Your task to perform on an android device: see sites visited before in the chrome app Image 0: 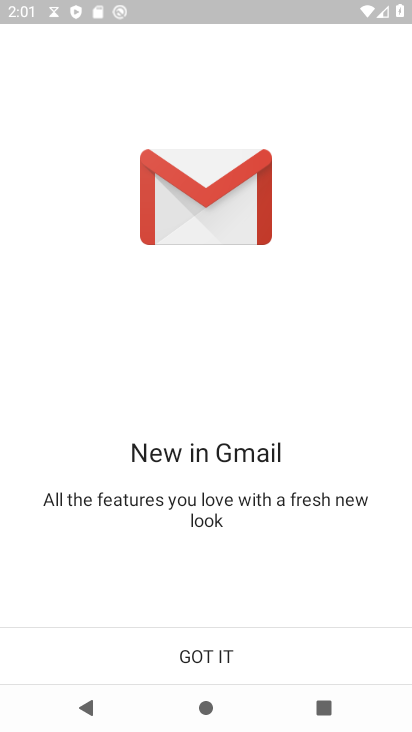
Step 0: press home button
Your task to perform on an android device: see sites visited before in the chrome app Image 1: 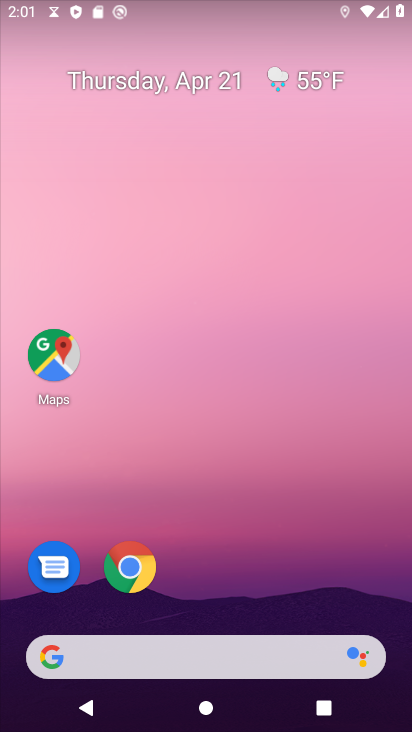
Step 1: drag from (262, 574) to (343, 123)
Your task to perform on an android device: see sites visited before in the chrome app Image 2: 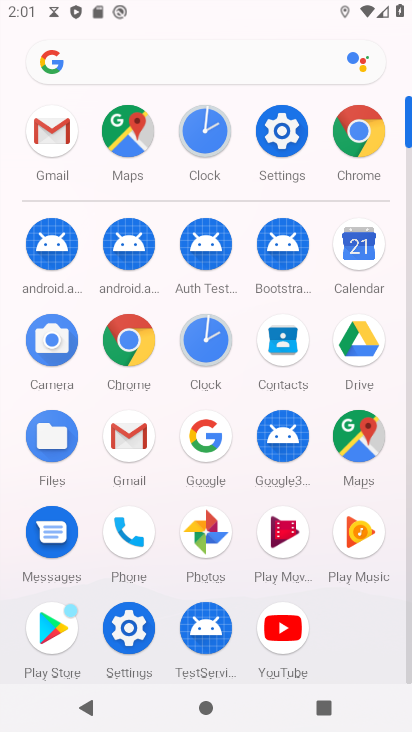
Step 2: click (362, 148)
Your task to perform on an android device: see sites visited before in the chrome app Image 3: 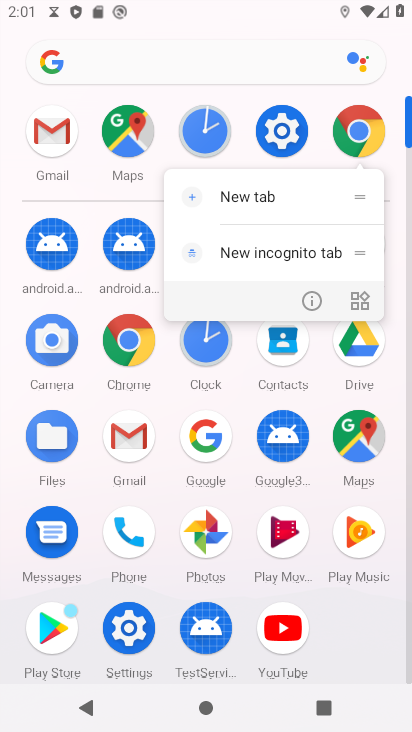
Step 3: click (362, 131)
Your task to perform on an android device: see sites visited before in the chrome app Image 4: 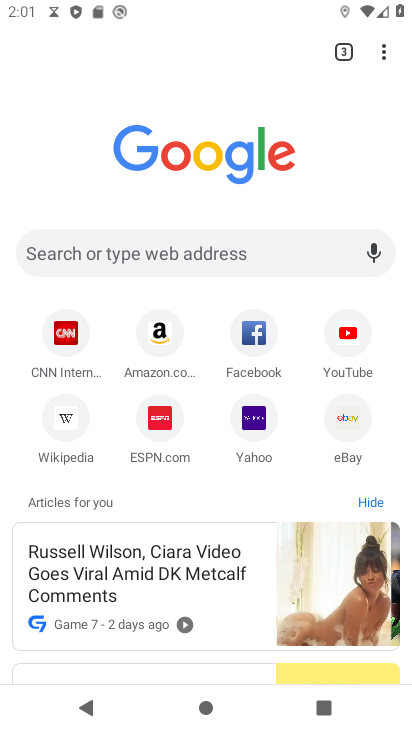
Step 4: click (380, 58)
Your task to perform on an android device: see sites visited before in the chrome app Image 5: 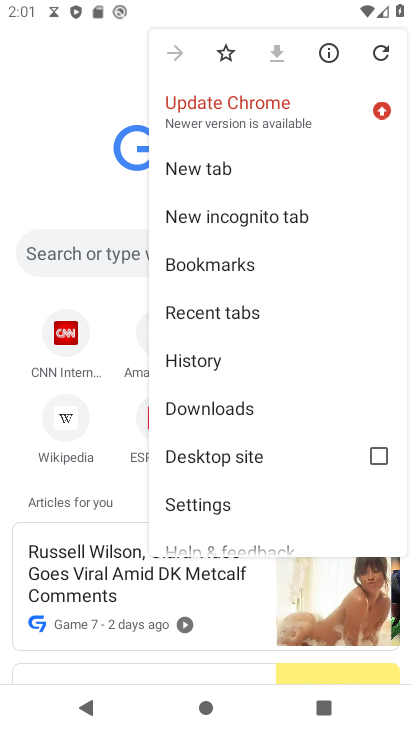
Step 5: click (225, 311)
Your task to perform on an android device: see sites visited before in the chrome app Image 6: 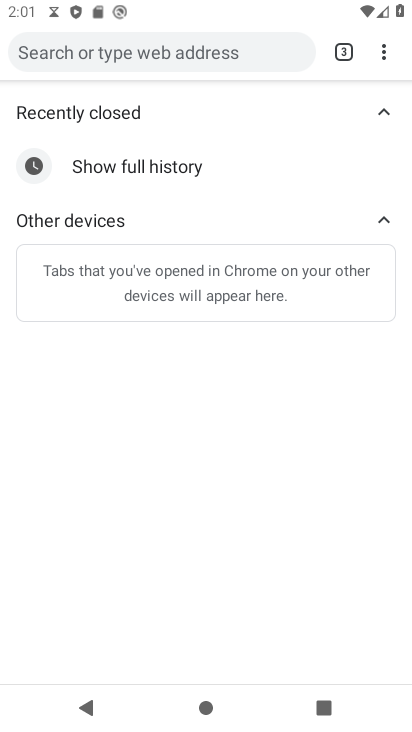
Step 6: task complete